Your task to perform on an android device: add a label to a message in the gmail app Image 0: 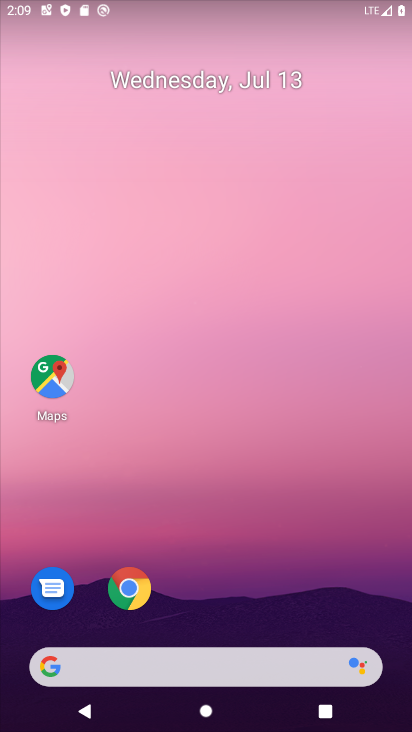
Step 0: drag from (386, 637) to (286, 99)
Your task to perform on an android device: add a label to a message in the gmail app Image 1: 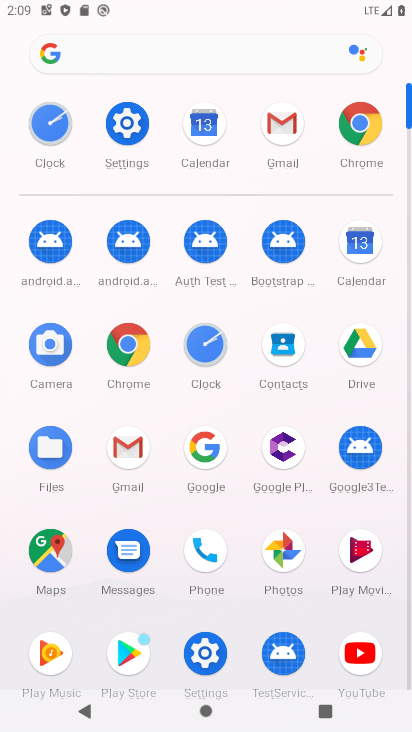
Step 1: click (121, 449)
Your task to perform on an android device: add a label to a message in the gmail app Image 2: 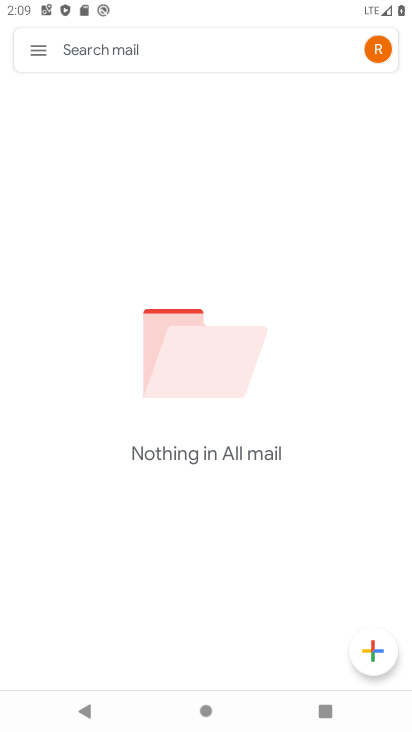
Step 2: click (40, 46)
Your task to perform on an android device: add a label to a message in the gmail app Image 3: 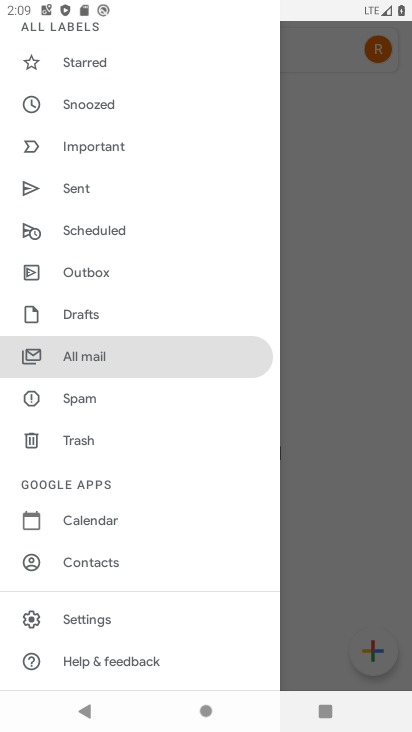
Step 3: drag from (105, 75) to (147, 453)
Your task to perform on an android device: add a label to a message in the gmail app Image 4: 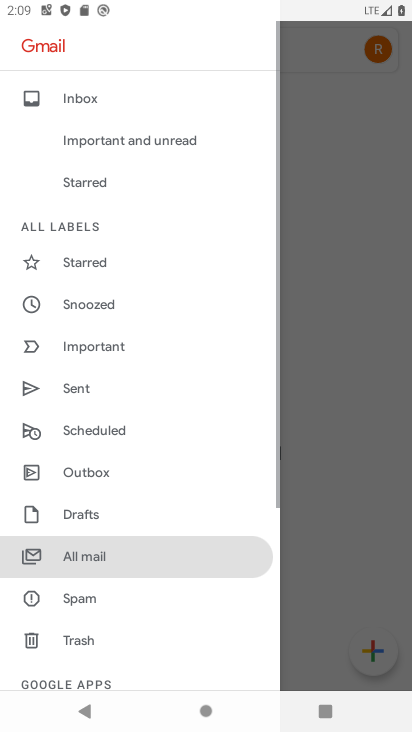
Step 4: click (78, 105)
Your task to perform on an android device: add a label to a message in the gmail app Image 5: 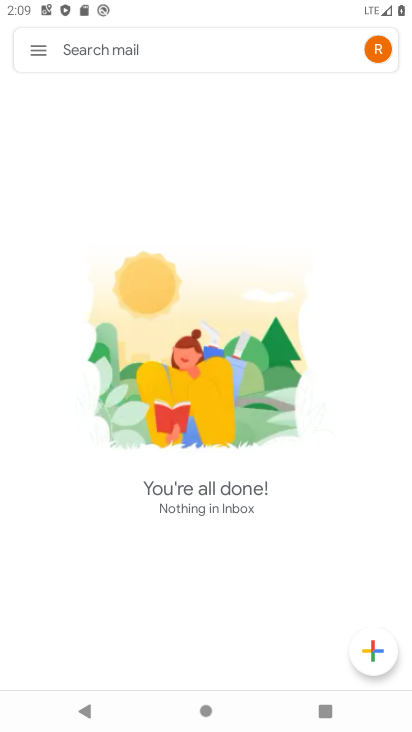
Step 5: task complete